Your task to perform on an android device: refresh tabs in the chrome app Image 0: 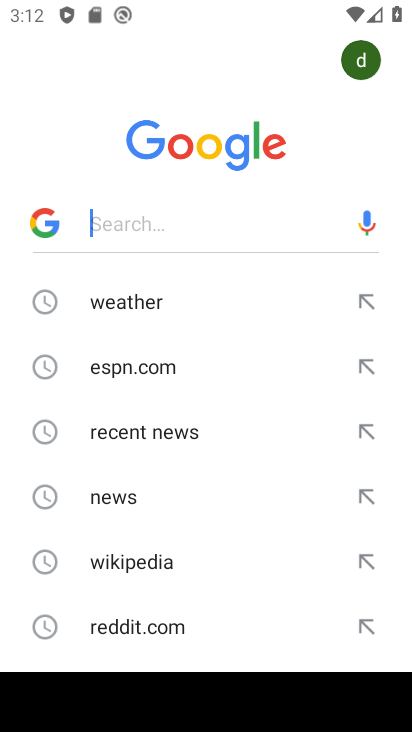
Step 0: press home button
Your task to perform on an android device: refresh tabs in the chrome app Image 1: 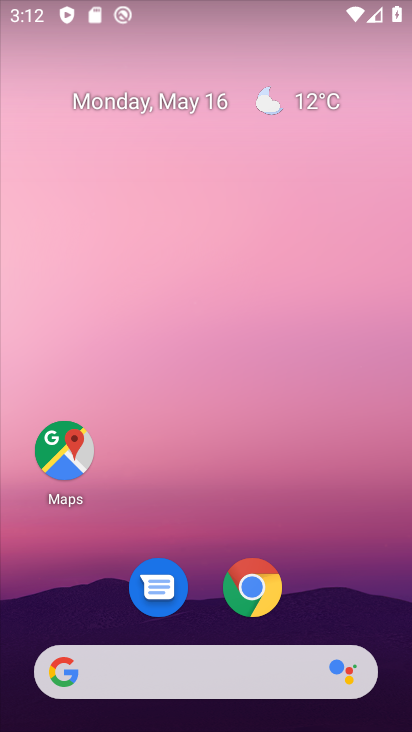
Step 1: click (258, 594)
Your task to perform on an android device: refresh tabs in the chrome app Image 2: 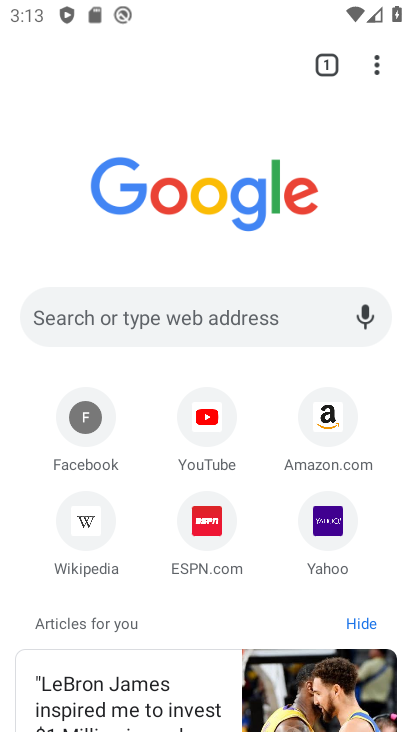
Step 2: click (375, 62)
Your task to perform on an android device: refresh tabs in the chrome app Image 3: 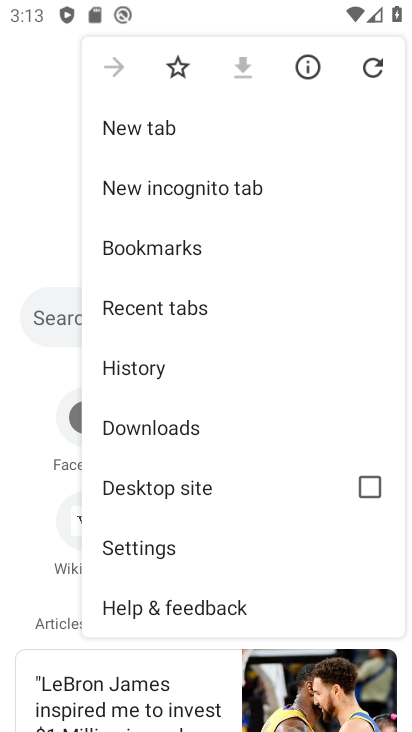
Step 3: click (158, 128)
Your task to perform on an android device: refresh tabs in the chrome app Image 4: 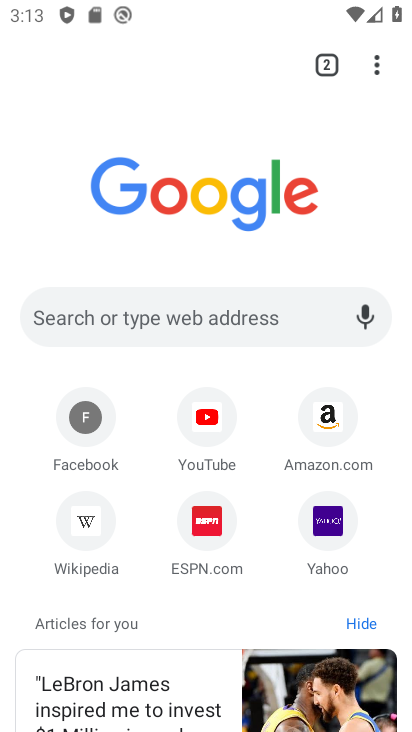
Step 4: click (376, 59)
Your task to perform on an android device: refresh tabs in the chrome app Image 5: 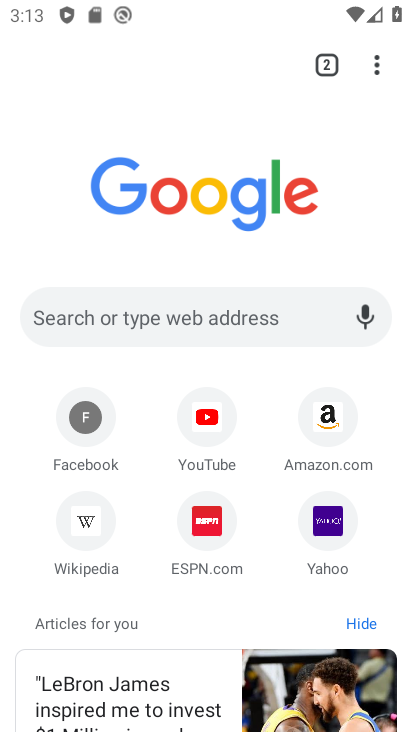
Step 5: task complete